Your task to perform on an android device: allow cookies in the chrome app Image 0: 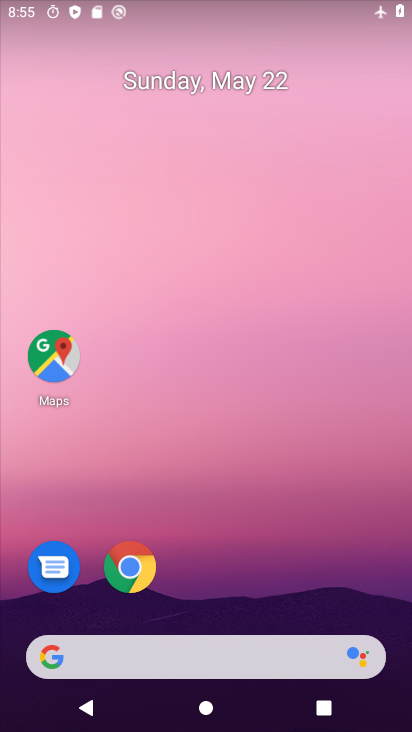
Step 0: click (160, 571)
Your task to perform on an android device: allow cookies in the chrome app Image 1: 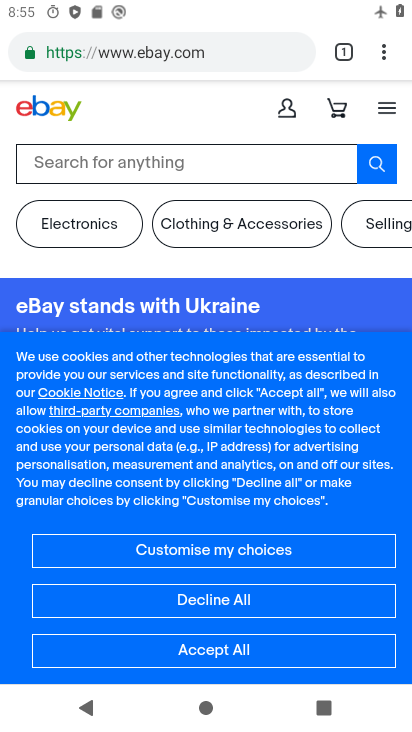
Step 1: click (384, 54)
Your task to perform on an android device: allow cookies in the chrome app Image 2: 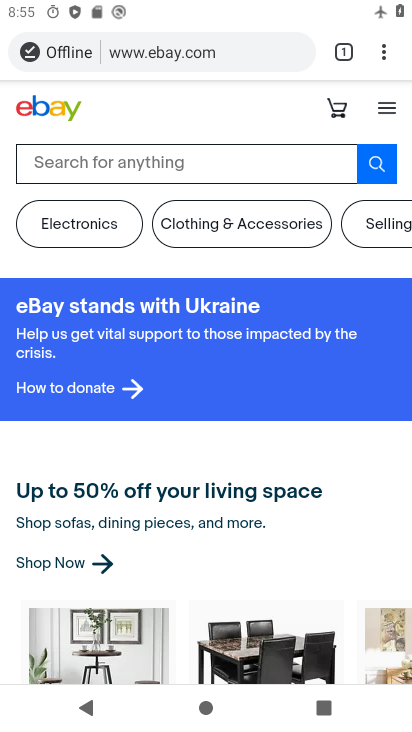
Step 2: click (375, 63)
Your task to perform on an android device: allow cookies in the chrome app Image 3: 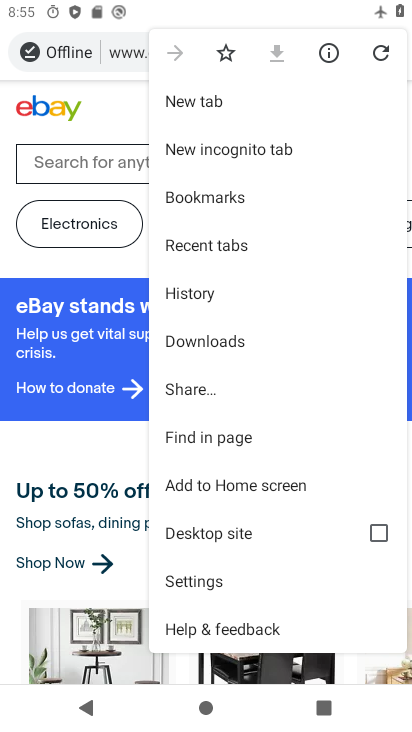
Step 3: click (214, 568)
Your task to perform on an android device: allow cookies in the chrome app Image 4: 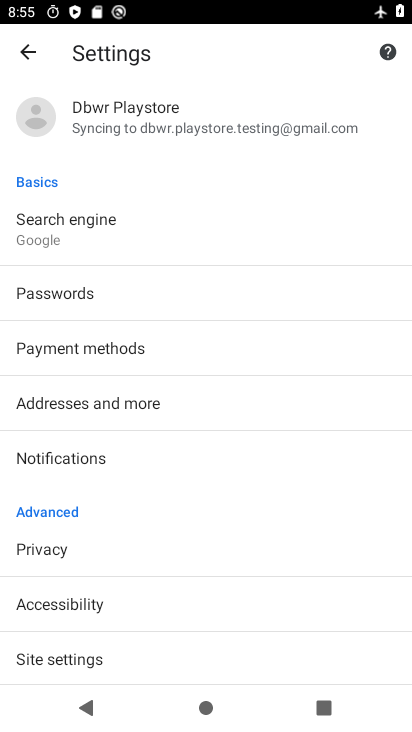
Step 4: drag from (90, 622) to (168, 286)
Your task to perform on an android device: allow cookies in the chrome app Image 5: 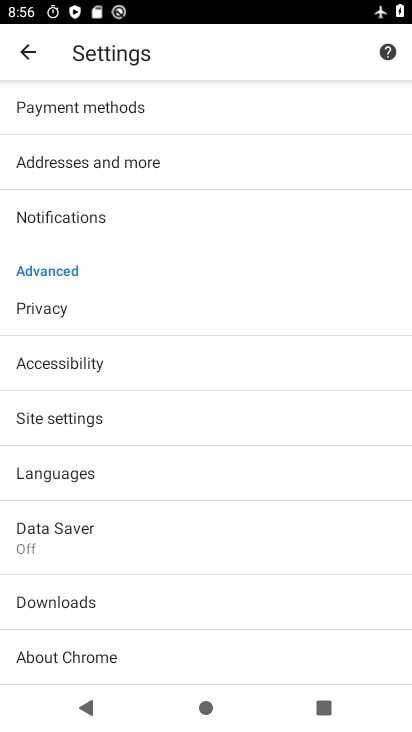
Step 5: click (90, 424)
Your task to perform on an android device: allow cookies in the chrome app Image 6: 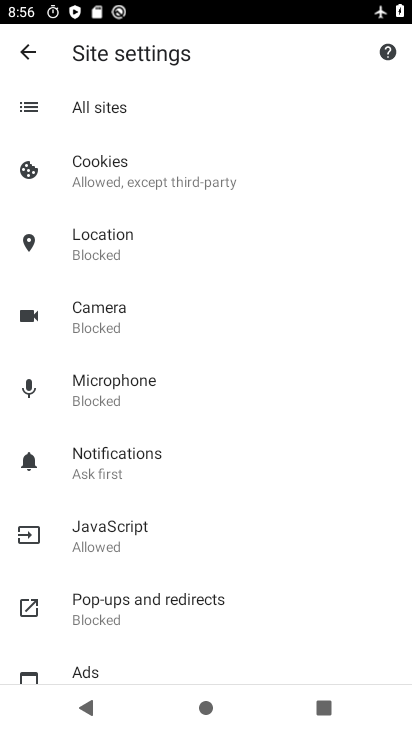
Step 6: click (141, 184)
Your task to perform on an android device: allow cookies in the chrome app Image 7: 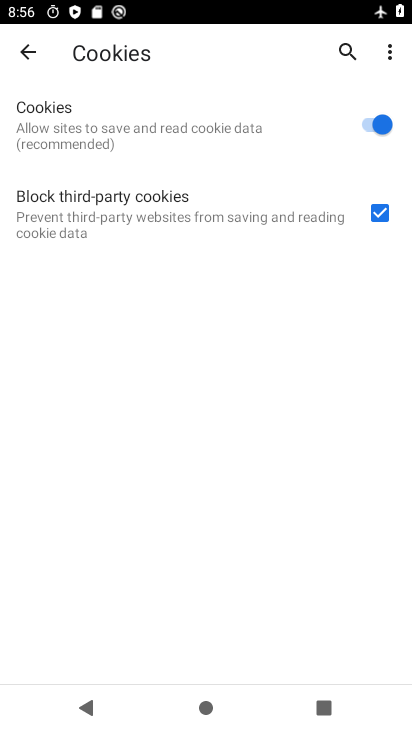
Step 7: task complete